Your task to perform on an android device: add a contact in the contacts app Image 0: 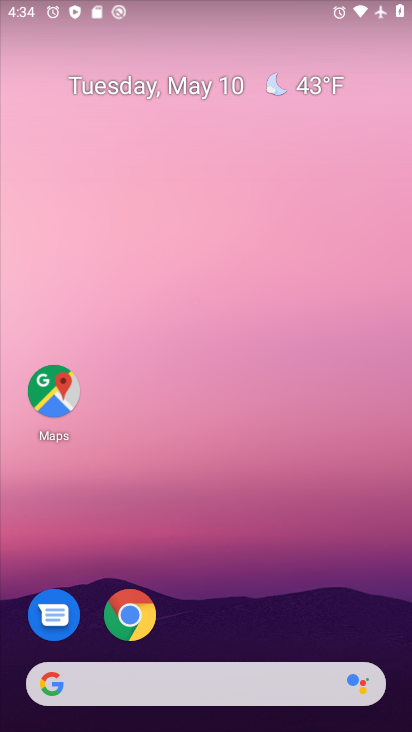
Step 0: click (236, 25)
Your task to perform on an android device: add a contact in the contacts app Image 1: 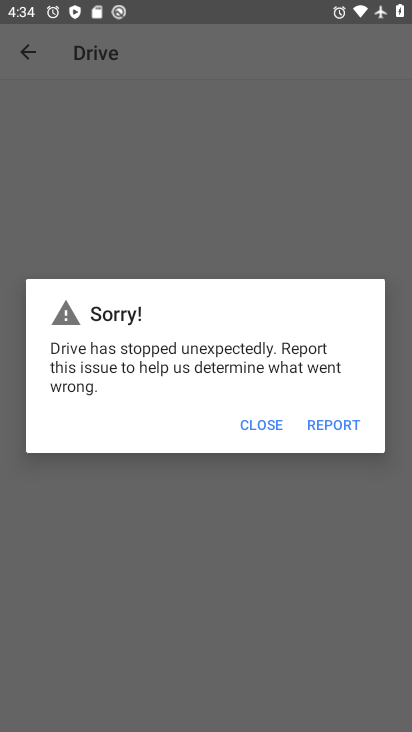
Step 1: press back button
Your task to perform on an android device: add a contact in the contacts app Image 2: 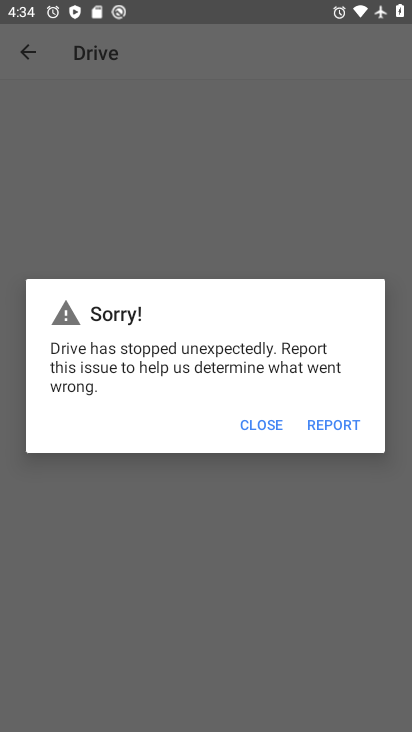
Step 2: press back button
Your task to perform on an android device: add a contact in the contacts app Image 3: 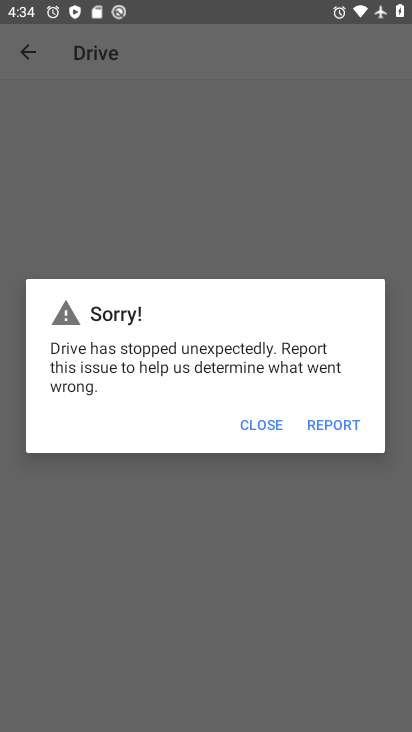
Step 3: press home button
Your task to perform on an android device: add a contact in the contacts app Image 4: 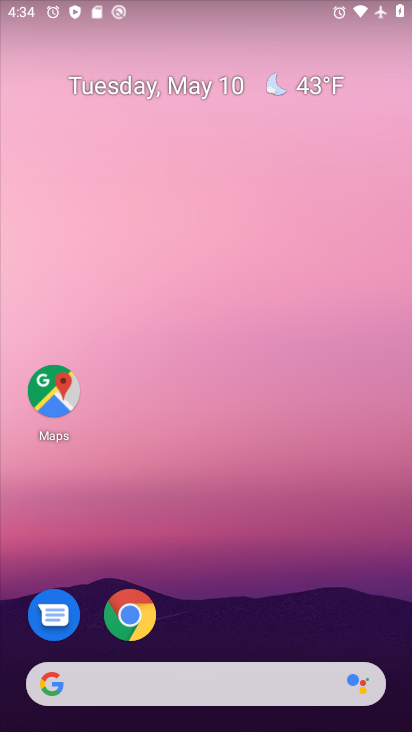
Step 4: drag from (212, 469) to (212, 27)
Your task to perform on an android device: add a contact in the contacts app Image 5: 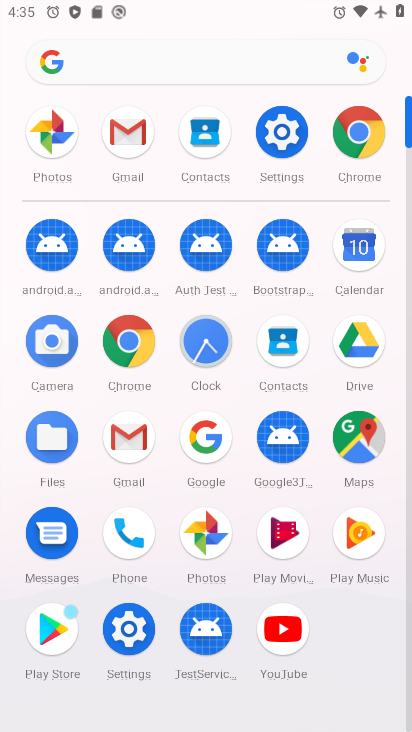
Step 5: click (280, 332)
Your task to perform on an android device: add a contact in the contacts app Image 6: 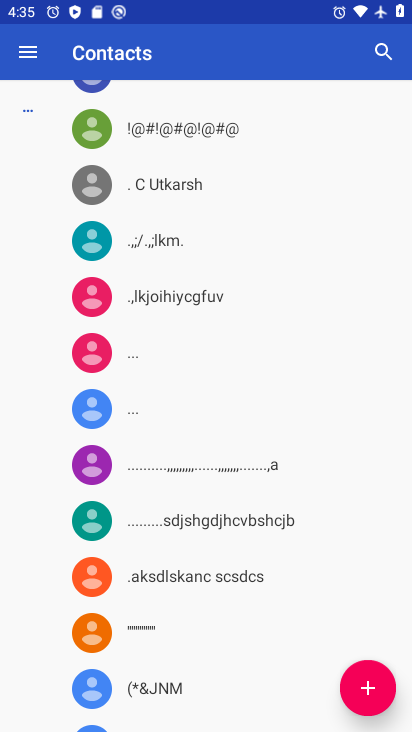
Step 6: click (364, 697)
Your task to perform on an android device: add a contact in the contacts app Image 7: 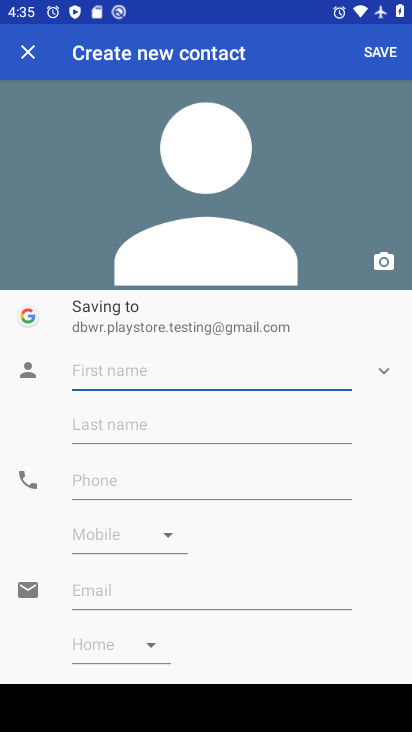
Step 7: click (158, 379)
Your task to perform on an android device: add a contact in the contacts app Image 8: 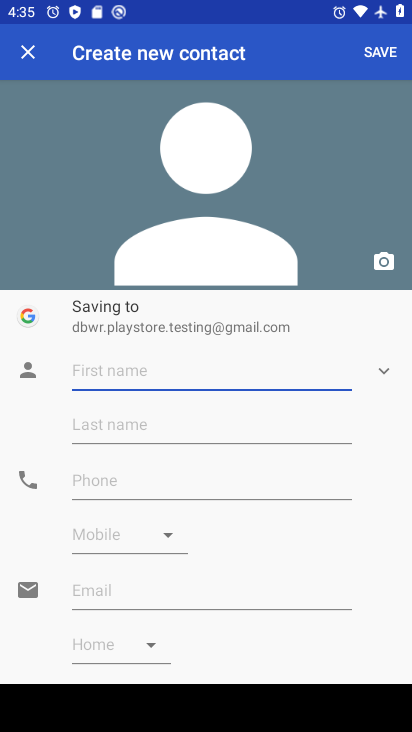
Step 8: type "ESFH"
Your task to perform on an android device: add a contact in the contacts app Image 9: 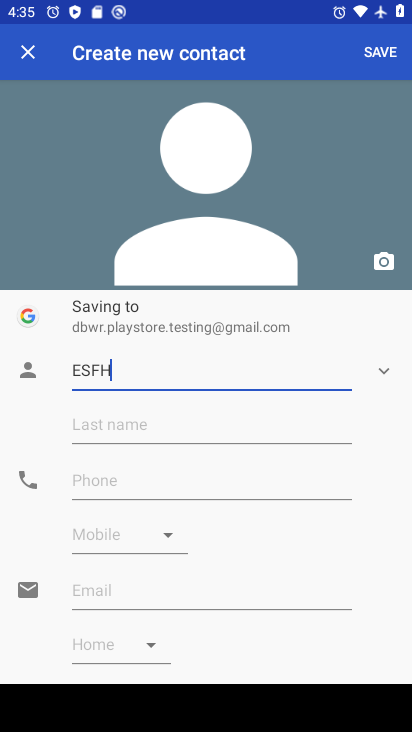
Step 9: type ""
Your task to perform on an android device: add a contact in the contacts app Image 10: 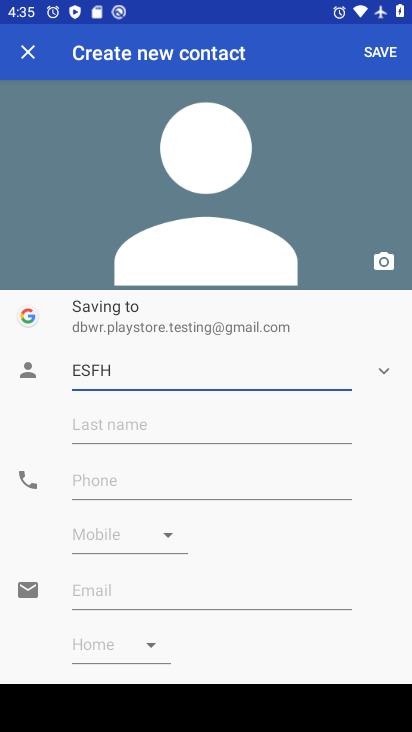
Step 10: click (166, 477)
Your task to perform on an android device: add a contact in the contacts app Image 11: 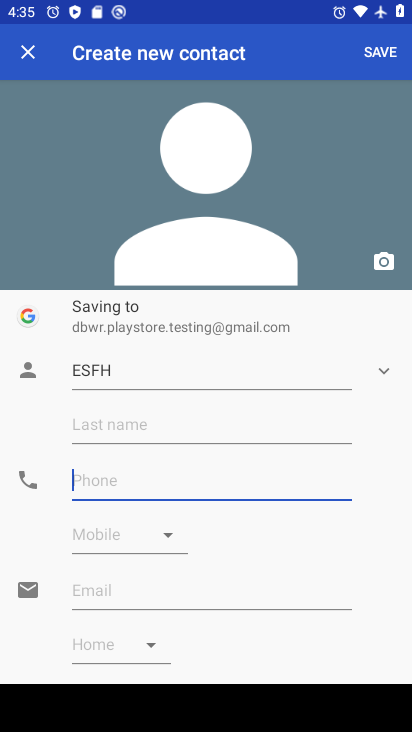
Step 11: type "3456433"
Your task to perform on an android device: add a contact in the contacts app Image 12: 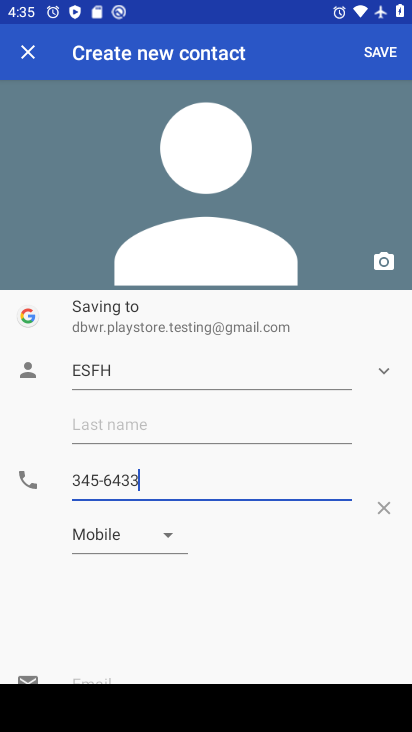
Step 12: type ""
Your task to perform on an android device: add a contact in the contacts app Image 13: 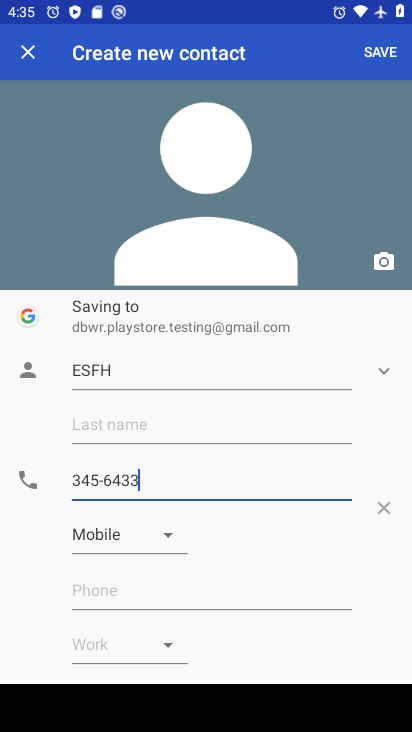
Step 13: click (382, 46)
Your task to perform on an android device: add a contact in the contacts app Image 14: 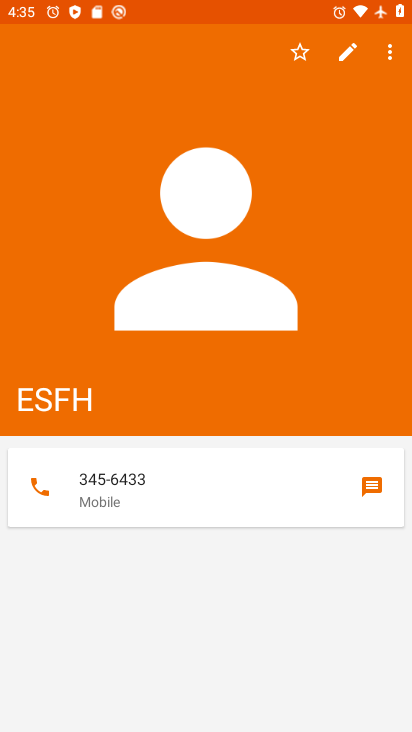
Step 14: task complete